Your task to perform on an android device: check the backup settings in the google photos Image 0: 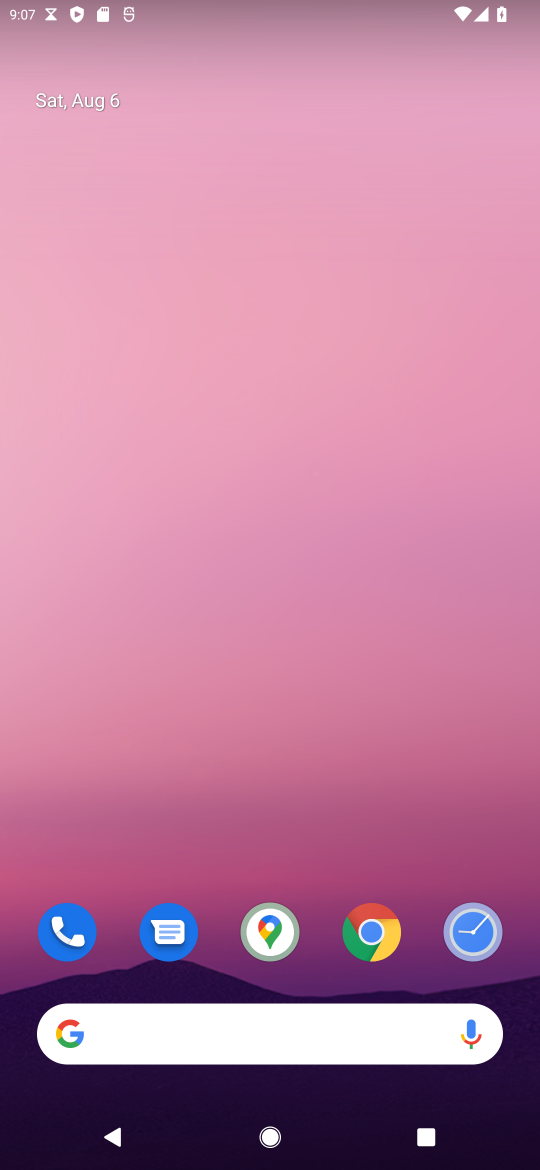
Step 0: drag from (218, 1049) to (375, 529)
Your task to perform on an android device: check the backup settings in the google photos Image 1: 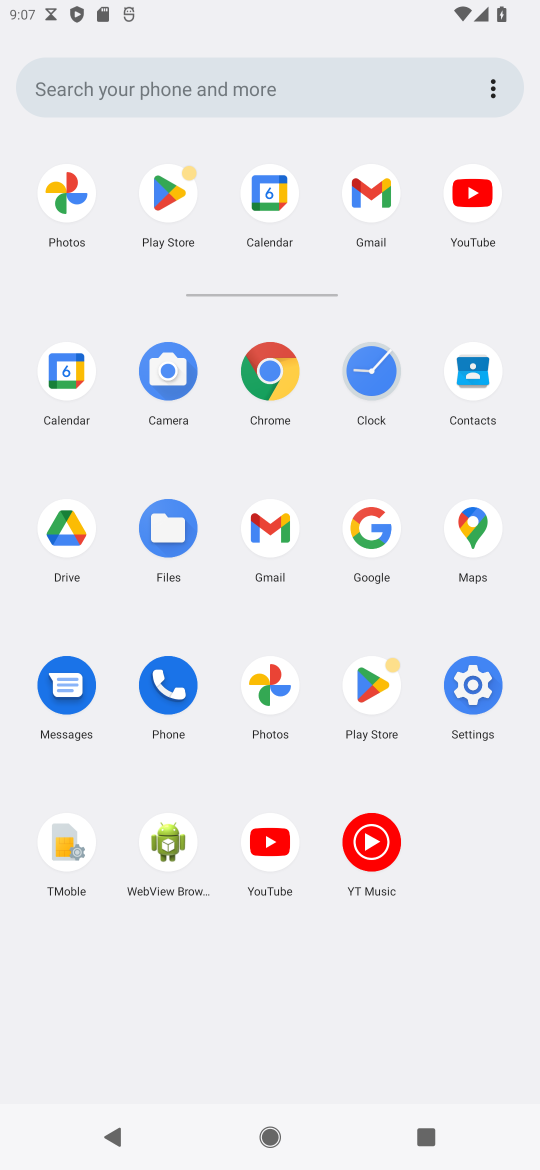
Step 1: click (68, 194)
Your task to perform on an android device: check the backup settings in the google photos Image 2: 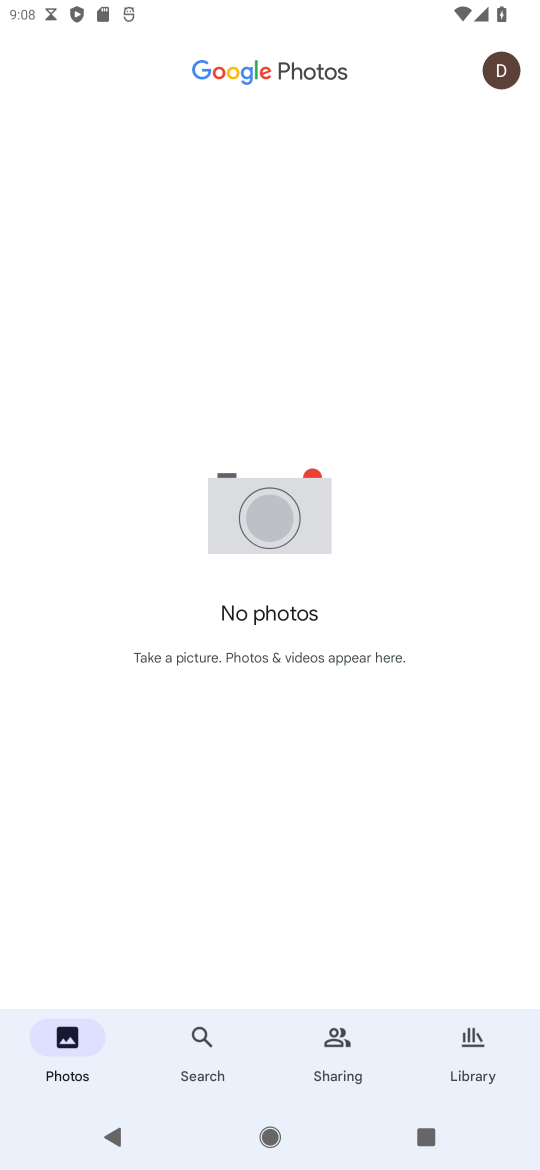
Step 2: click (500, 71)
Your task to perform on an android device: check the backup settings in the google photos Image 3: 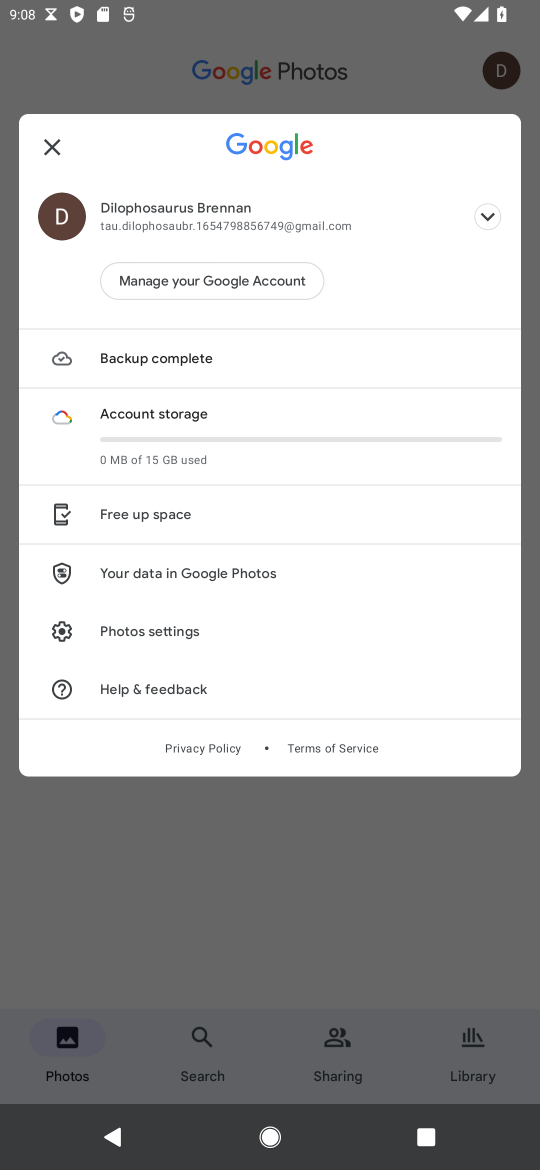
Step 3: click (121, 629)
Your task to perform on an android device: check the backup settings in the google photos Image 4: 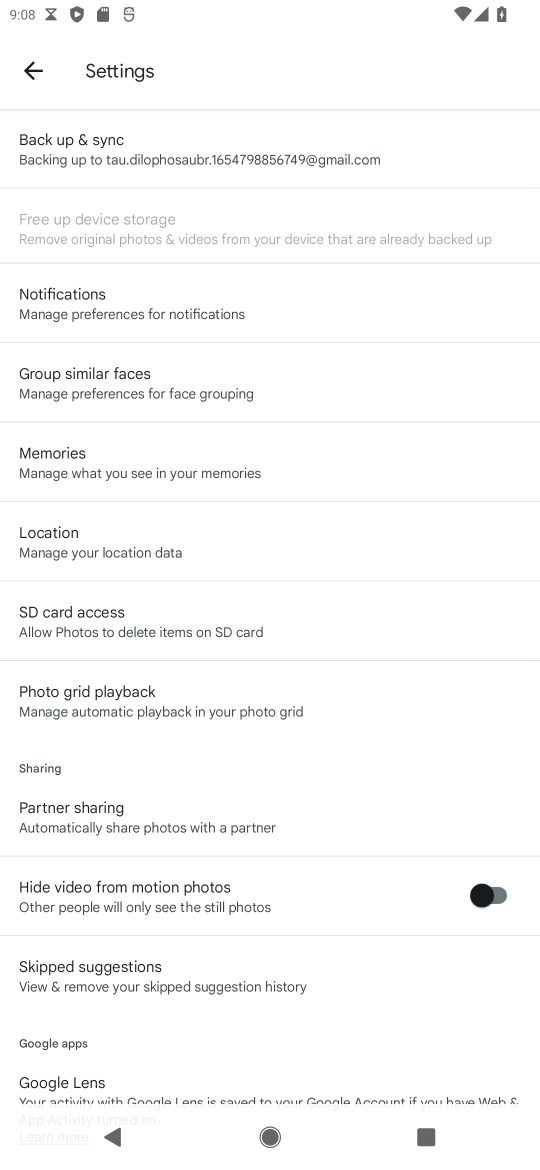
Step 4: click (108, 156)
Your task to perform on an android device: check the backup settings in the google photos Image 5: 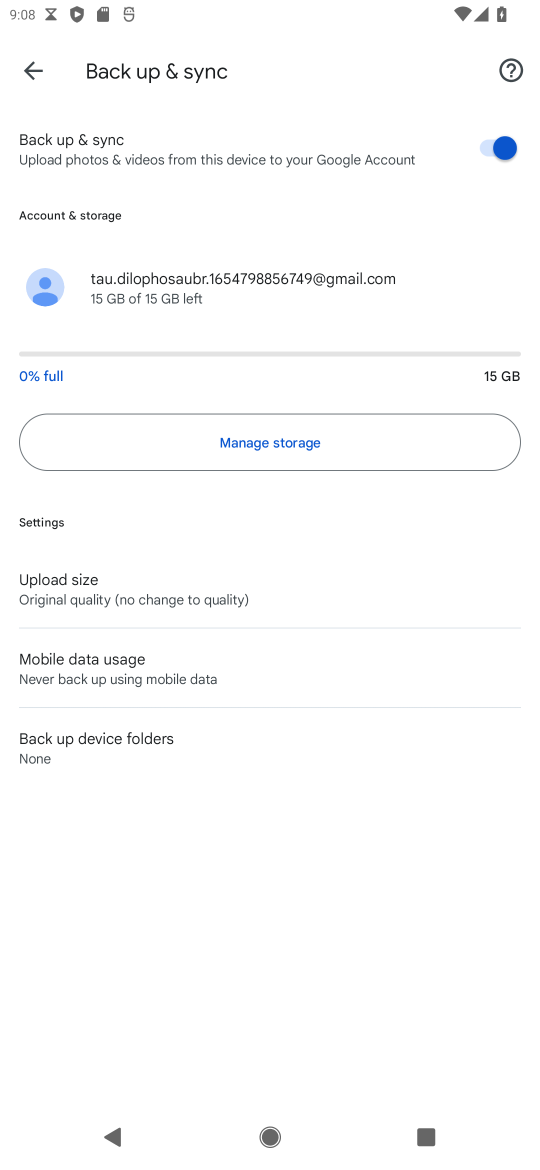
Step 5: task complete